Your task to perform on an android device: Search for Mexican restaurants on Maps Image 0: 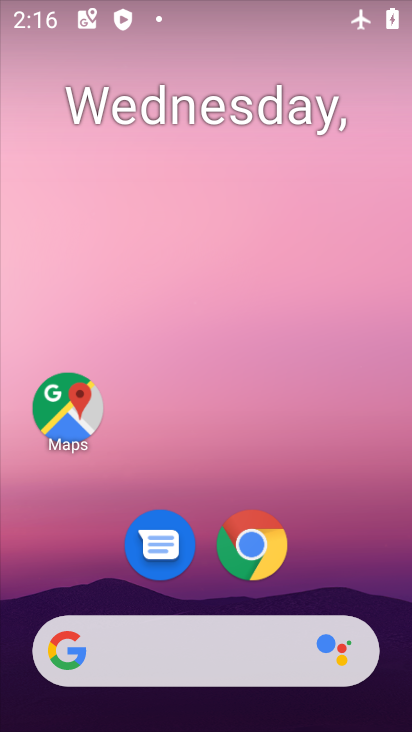
Step 0: click (67, 423)
Your task to perform on an android device: Search for Mexican restaurants on Maps Image 1: 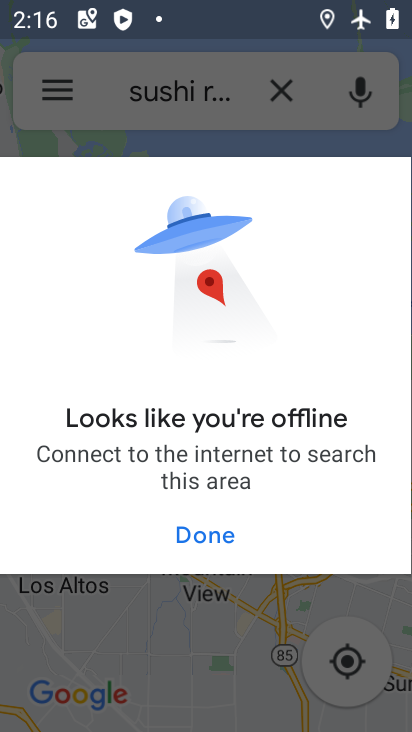
Step 1: click (195, 534)
Your task to perform on an android device: Search for Mexican restaurants on Maps Image 2: 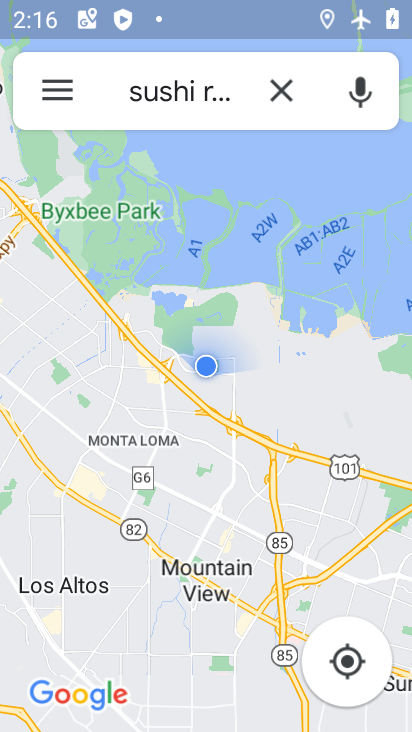
Step 2: click (283, 94)
Your task to perform on an android device: Search for Mexican restaurants on Maps Image 3: 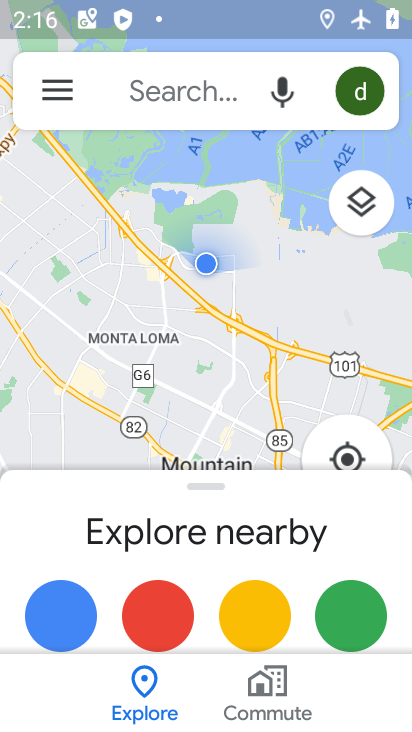
Step 3: click (206, 92)
Your task to perform on an android device: Search for Mexican restaurants on Maps Image 4: 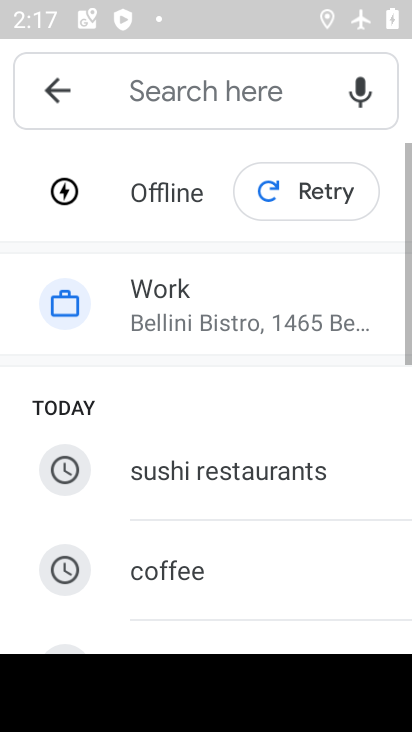
Step 4: drag from (215, 610) to (241, 231)
Your task to perform on an android device: Search for Mexican restaurants on Maps Image 5: 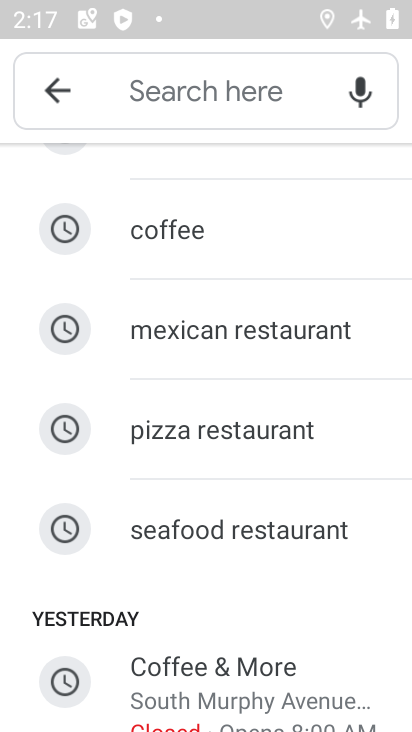
Step 5: click (263, 338)
Your task to perform on an android device: Search for Mexican restaurants on Maps Image 6: 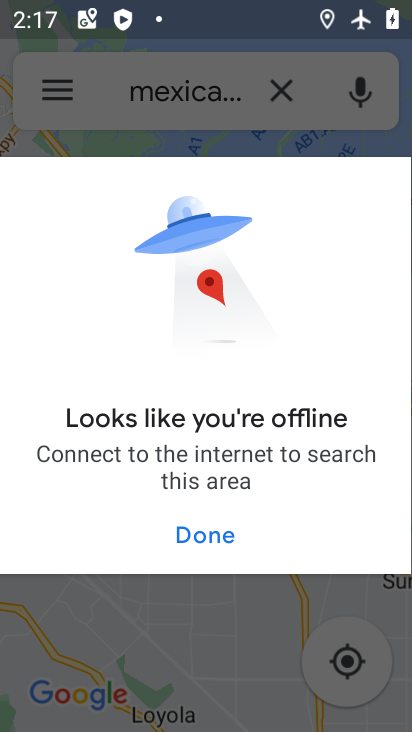
Step 6: task complete